Your task to perform on an android device: open app "Duolingo: language lessons" (install if not already installed) Image 0: 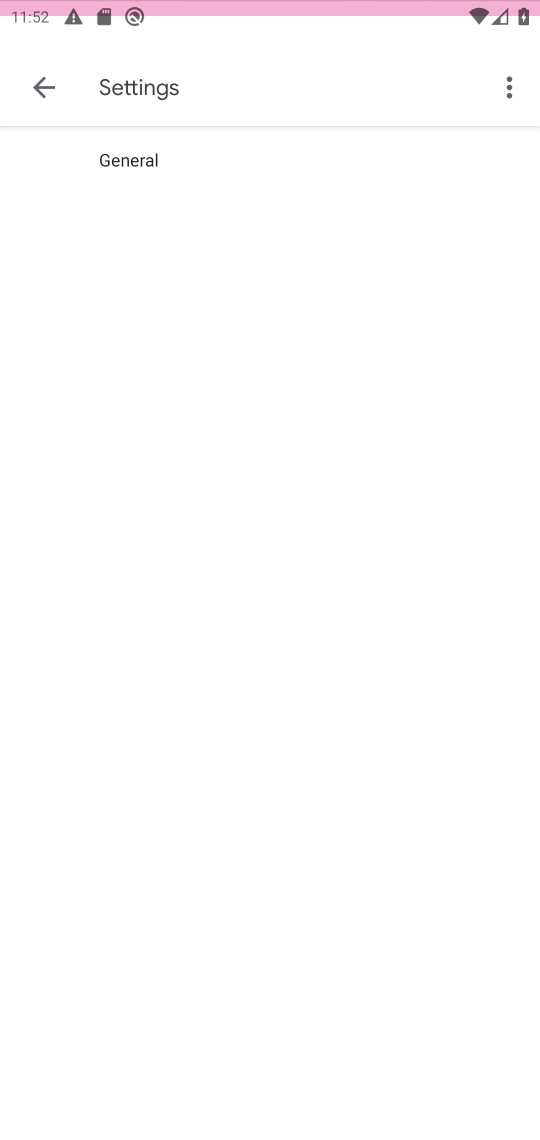
Step 0: press home button
Your task to perform on an android device: open app "Duolingo: language lessons" (install if not already installed) Image 1: 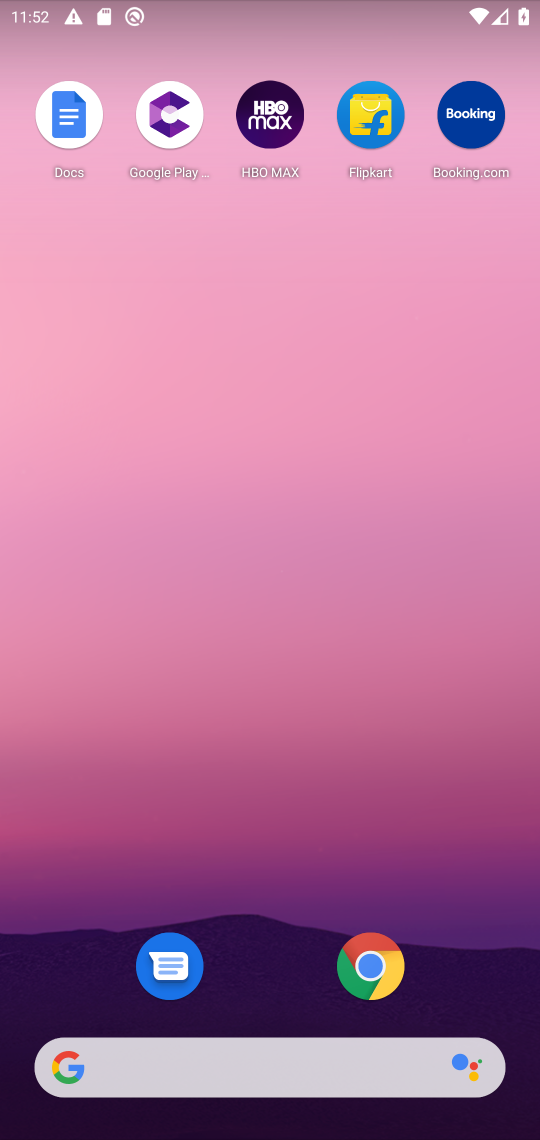
Step 1: drag from (464, 796) to (466, 227)
Your task to perform on an android device: open app "Duolingo: language lessons" (install if not already installed) Image 2: 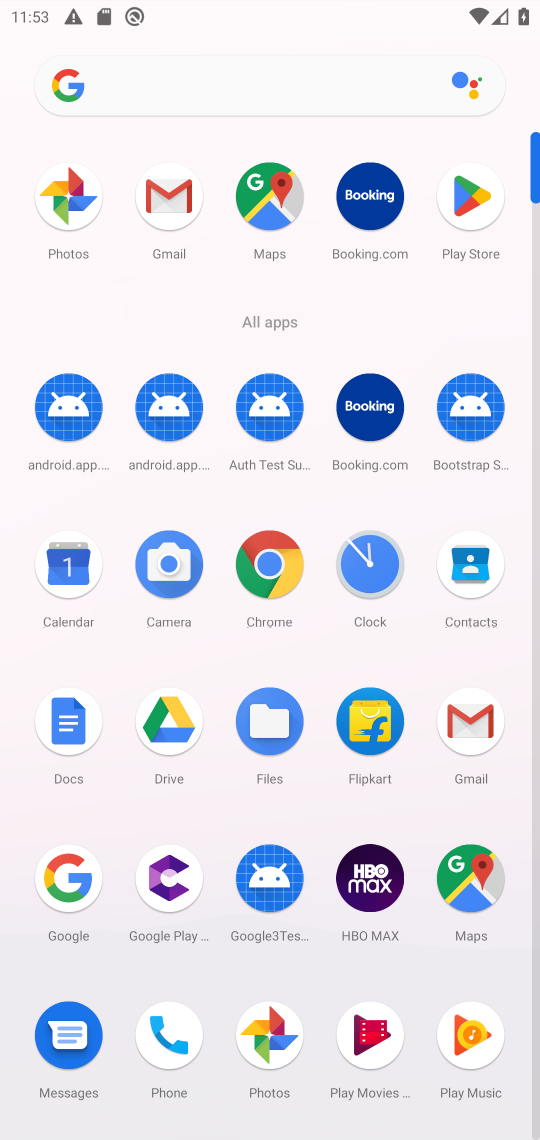
Step 2: click (464, 216)
Your task to perform on an android device: open app "Duolingo: language lessons" (install if not already installed) Image 3: 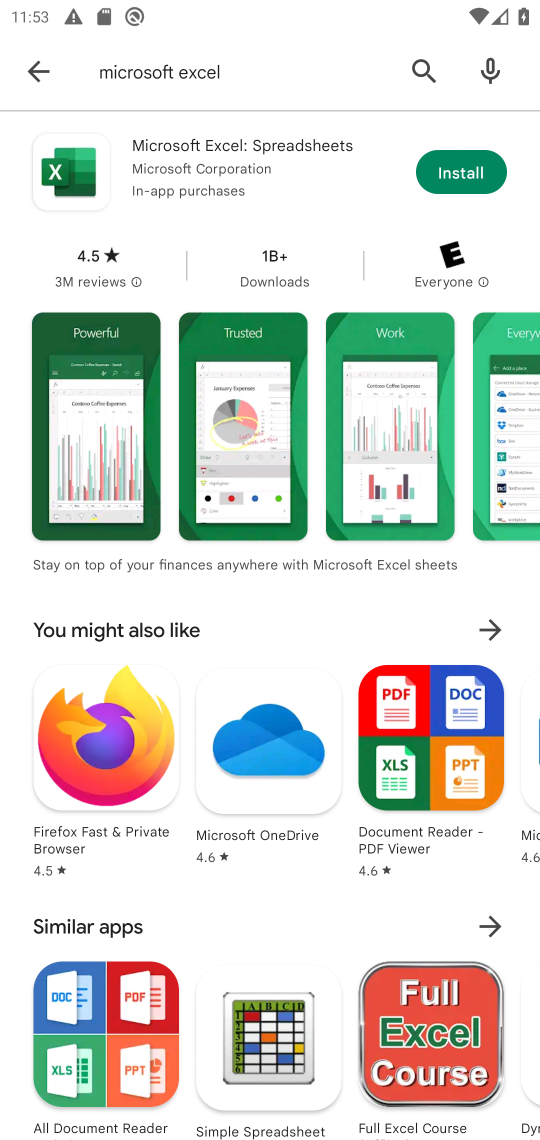
Step 3: click (435, 72)
Your task to perform on an android device: open app "Duolingo: language lessons" (install if not already installed) Image 4: 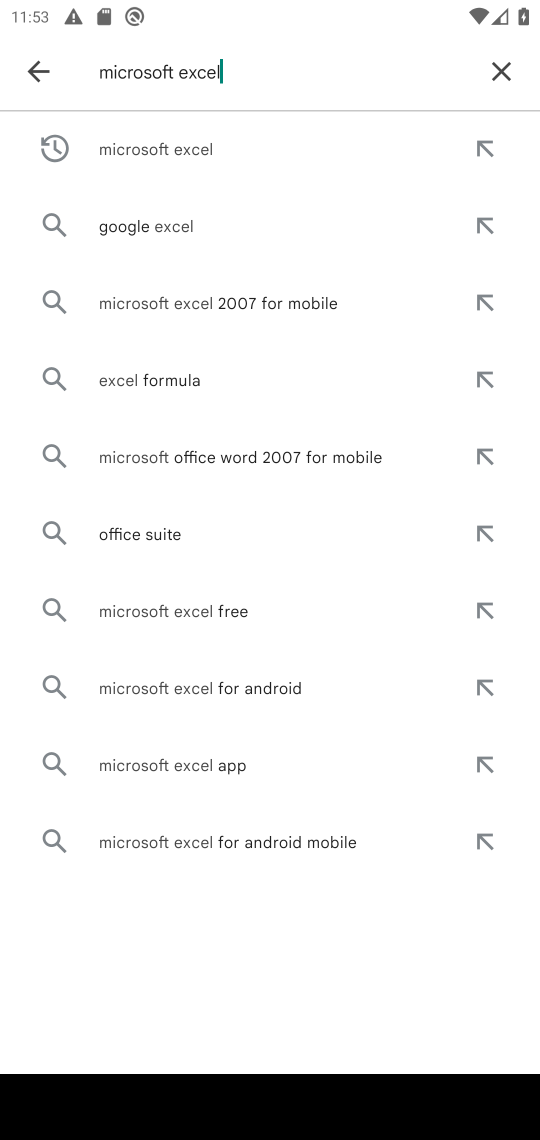
Step 4: click (507, 78)
Your task to perform on an android device: open app "Duolingo: language lessons" (install if not already installed) Image 5: 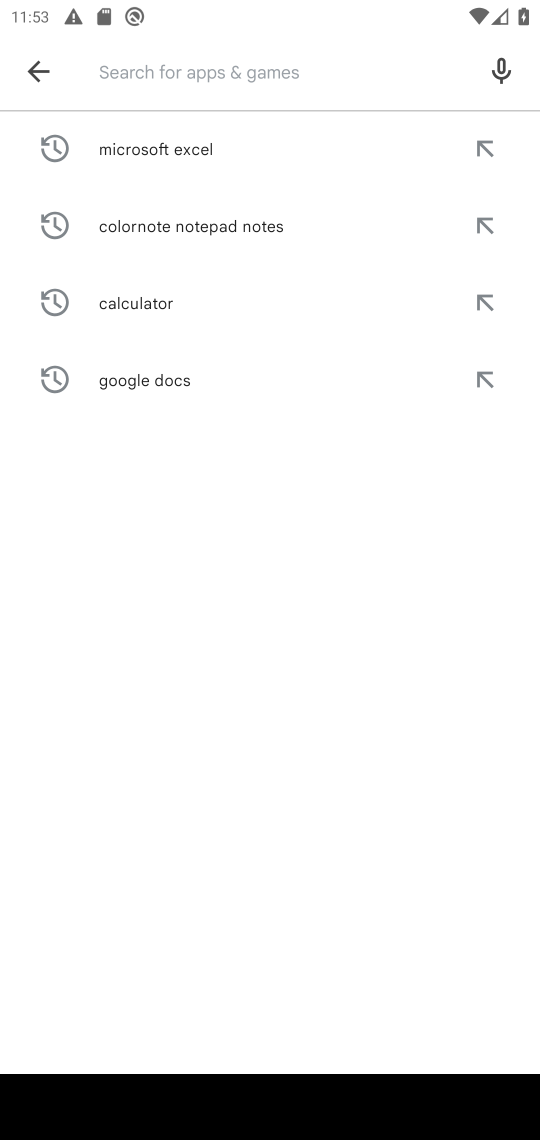
Step 5: click (333, 80)
Your task to perform on an android device: open app "Duolingo: language lessons" (install if not already installed) Image 6: 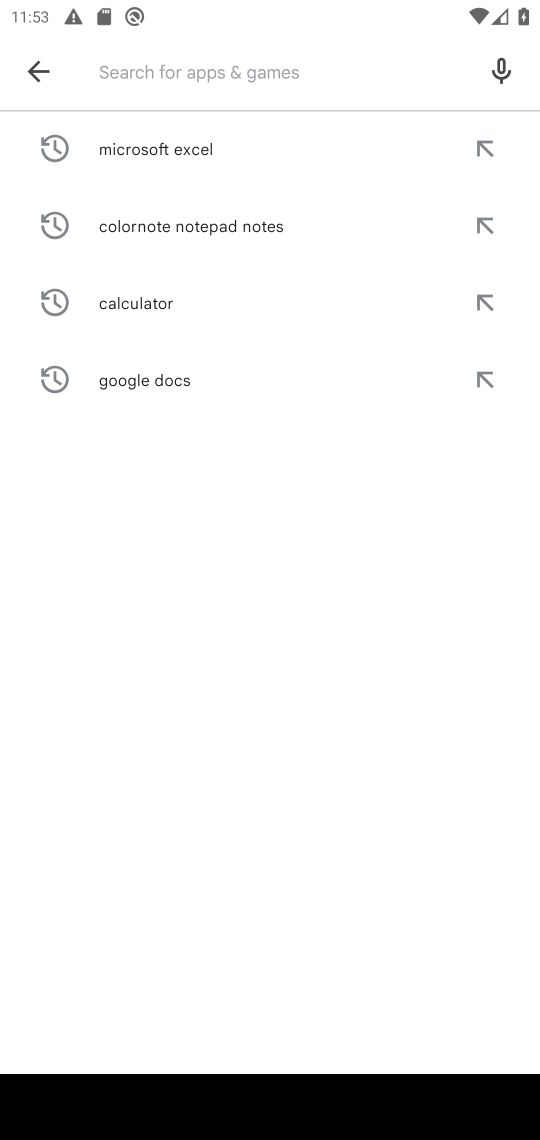
Step 6: type "Duolingo: language lessons"
Your task to perform on an android device: open app "Duolingo: language lessons" (install if not already installed) Image 7: 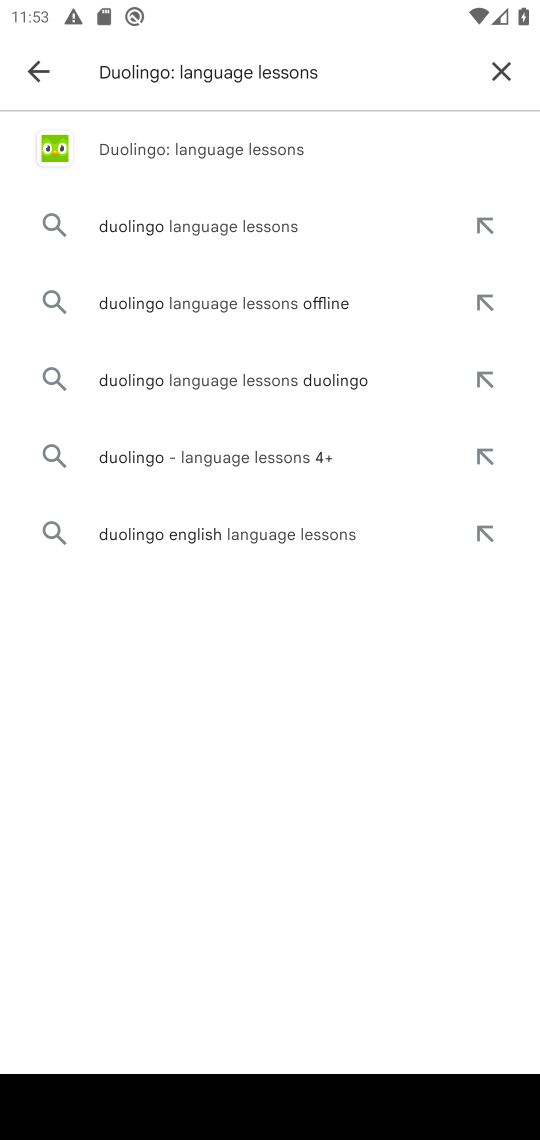
Step 7: click (201, 159)
Your task to perform on an android device: open app "Duolingo: language lessons" (install if not already installed) Image 8: 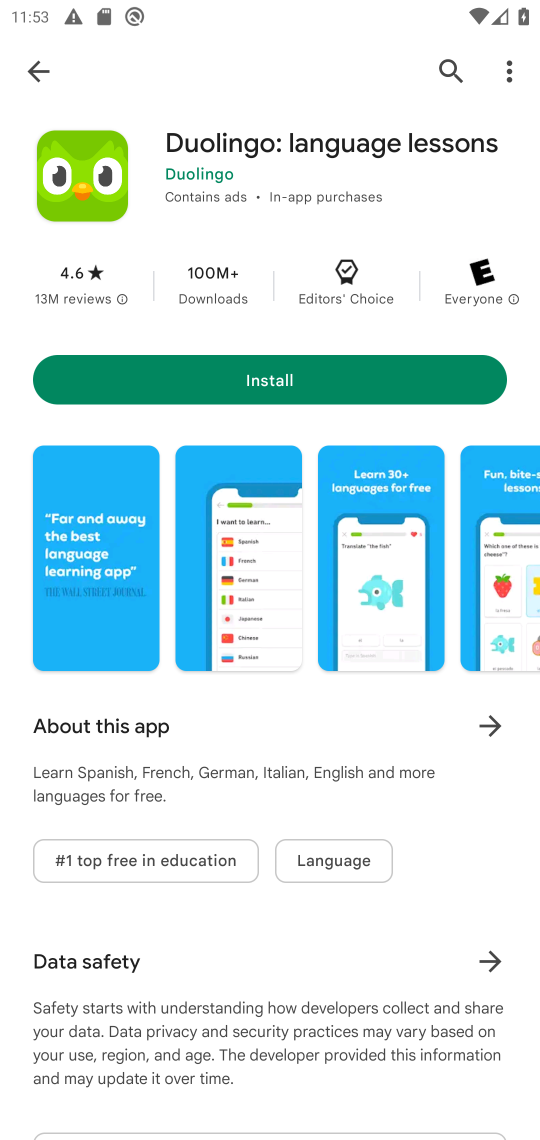
Step 8: click (369, 378)
Your task to perform on an android device: open app "Duolingo: language lessons" (install if not already installed) Image 9: 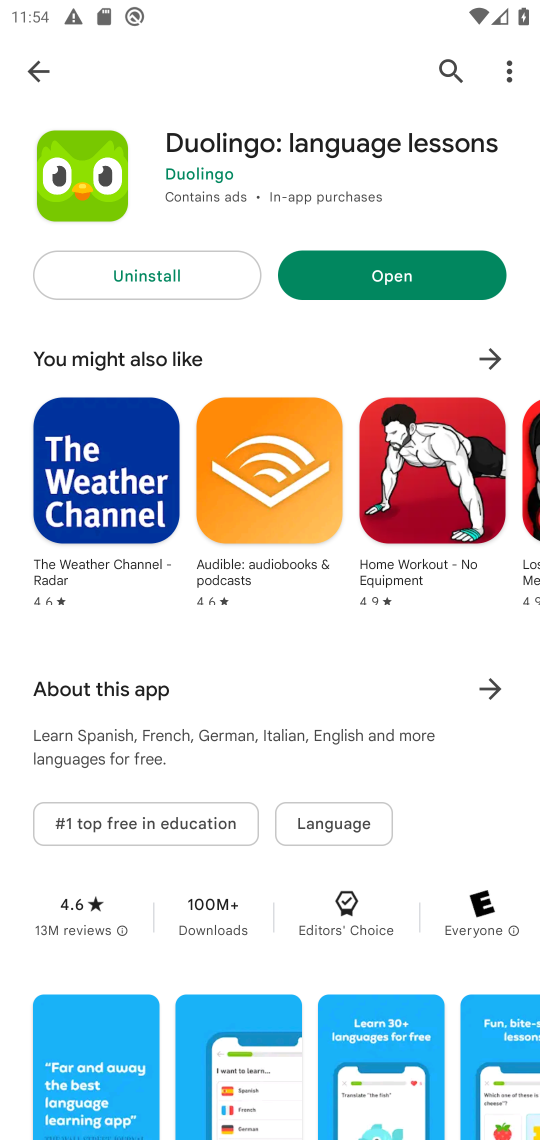
Step 9: click (433, 259)
Your task to perform on an android device: open app "Duolingo: language lessons" (install if not already installed) Image 10: 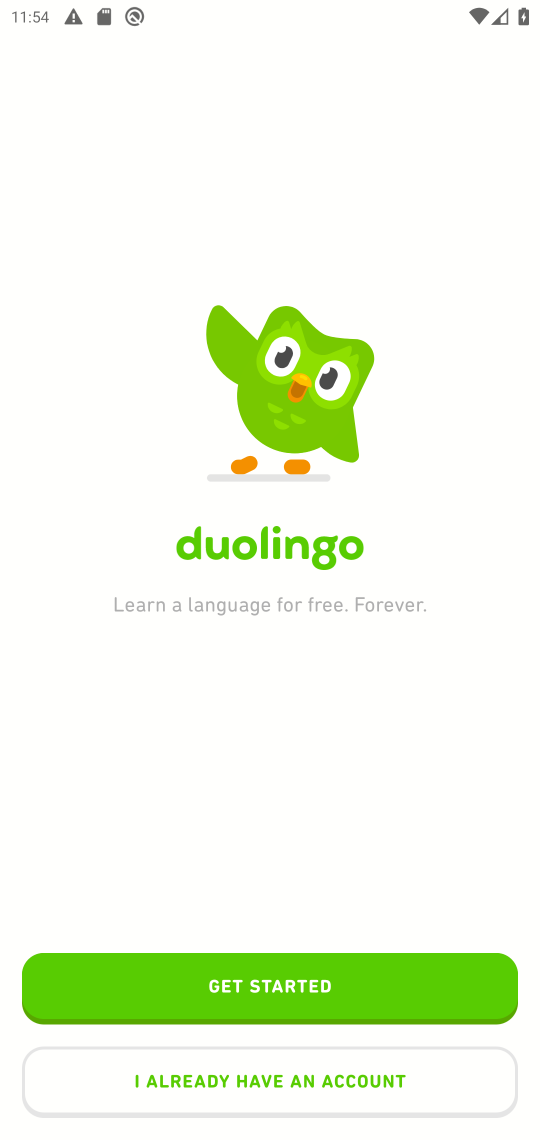
Step 10: task complete